Your task to perform on an android device: turn off wifi Image 0: 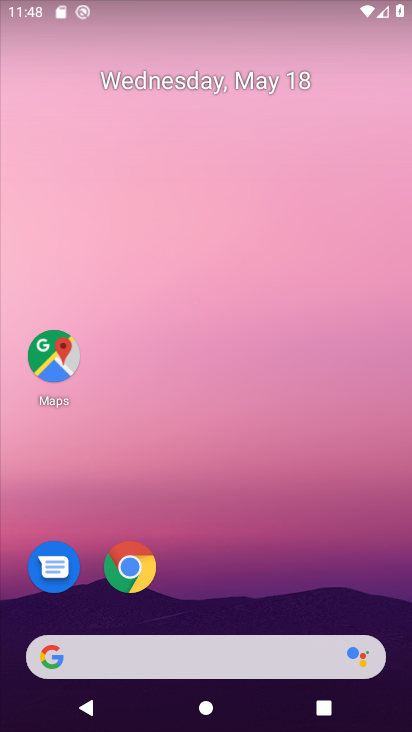
Step 0: drag from (298, 525) to (271, 11)
Your task to perform on an android device: turn off wifi Image 1: 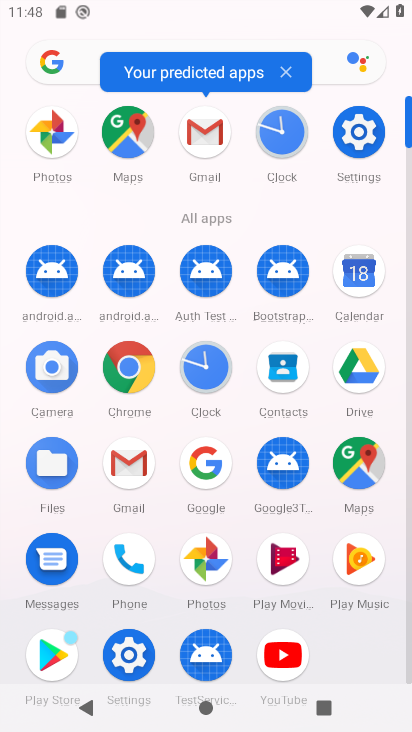
Step 1: click (362, 117)
Your task to perform on an android device: turn off wifi Image 2: 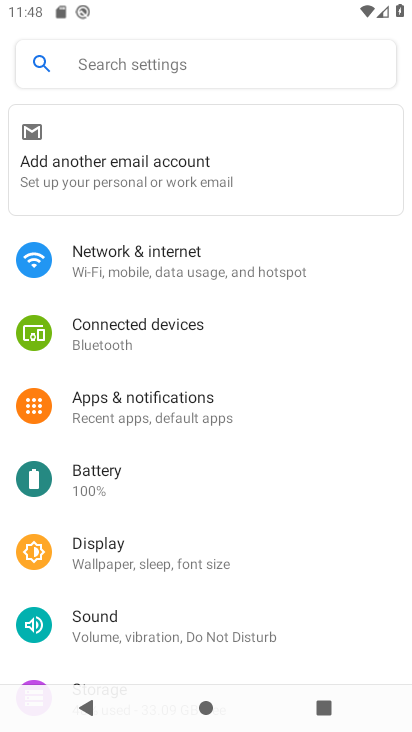
Step 2: click (166, 251)
Your task to perform on an android device: turn off wifi Image 3: 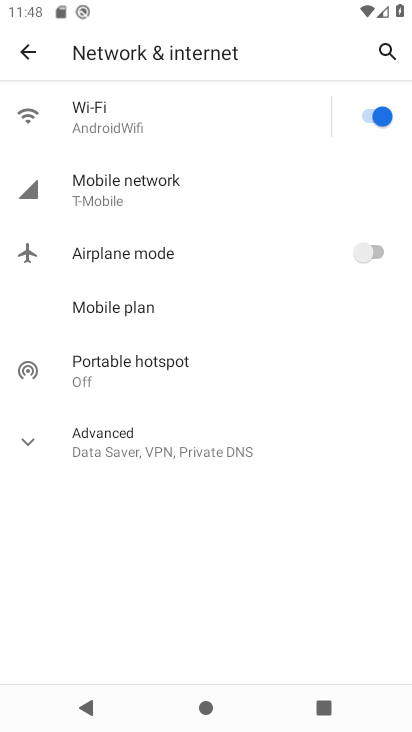
Step 3: click (372, 113)
Your task to perform on an android device: turn off wifi Image 4: 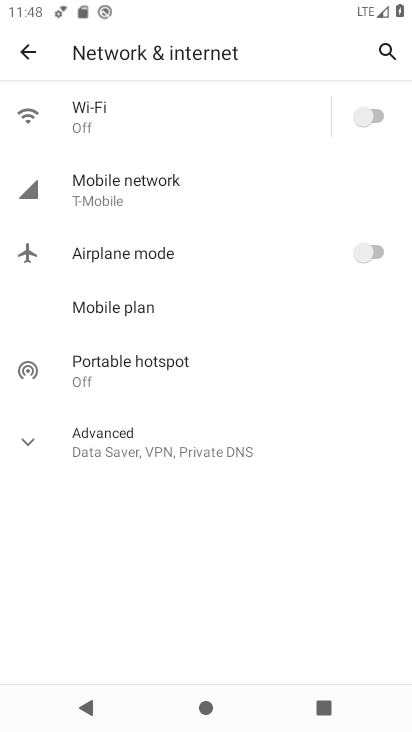
Step 4: task complete